Your task to perform on an android device: open the mobile data screen to see how much data has been used Image 0: 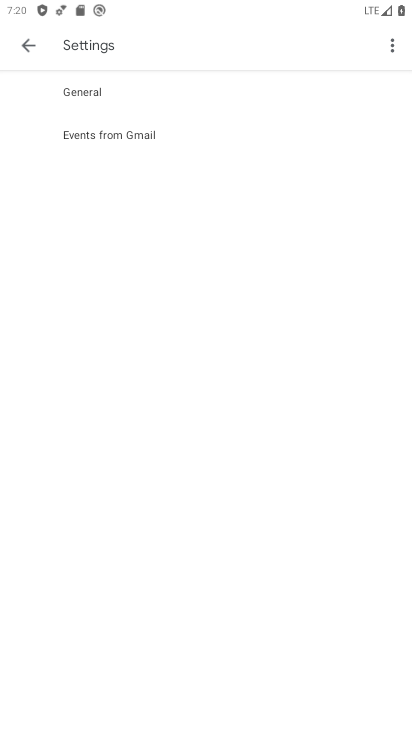
Step 0: press back button
Your task to perform on an android device: open the mobile data screen to see how much data has been used Image 1: 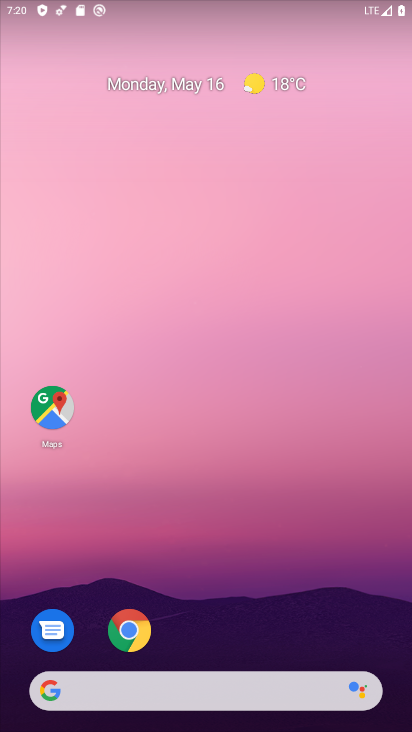
Step 1: drag from (229, 611) to (181, 57)
Your task to perform on an android device: open the mobile data screen to see how much data has been used Image 2: 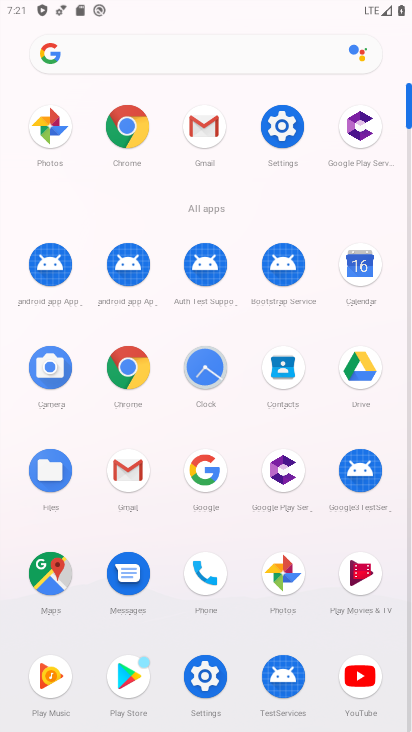
Step 2: click (282, 126)
Your task to perform on an android device: open the mobile data screen to see how much data has been used Image 3: 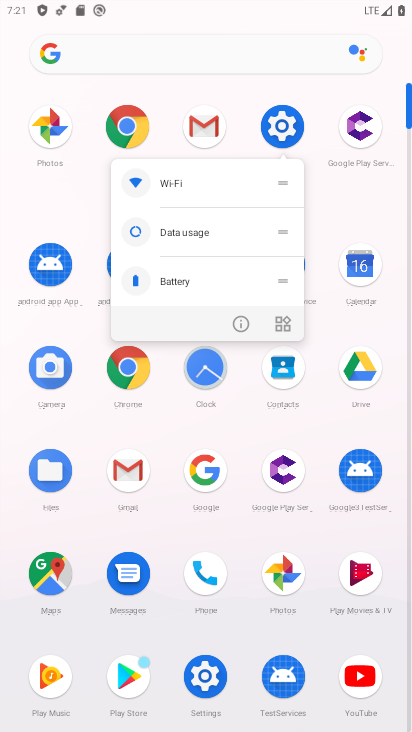
Step 3: click (193, 231)
Your task to perform on an android device: open the mobile data screen to see how much data has been used Image 4: 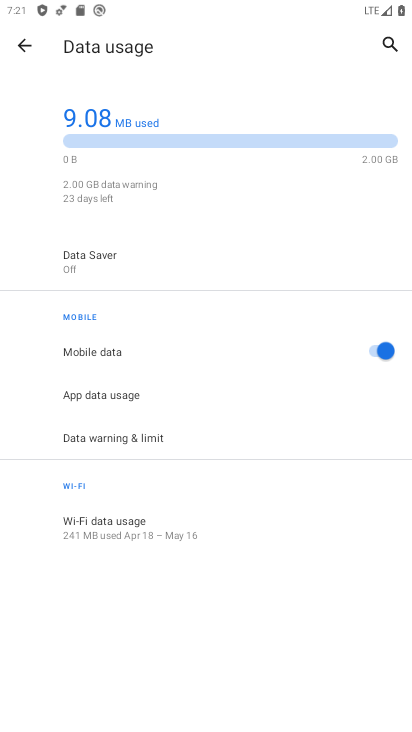
Step 4: task complete